Your task to perform on an android device: Open maps Image 0: 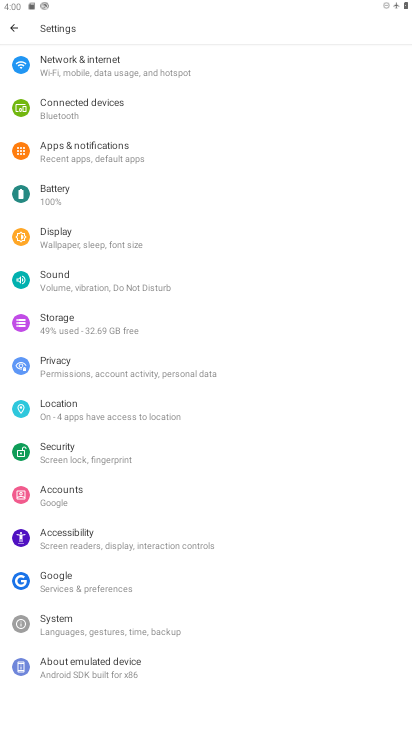
Step 0: press home button
Your task to perform on an android device: Open maps Image 1: 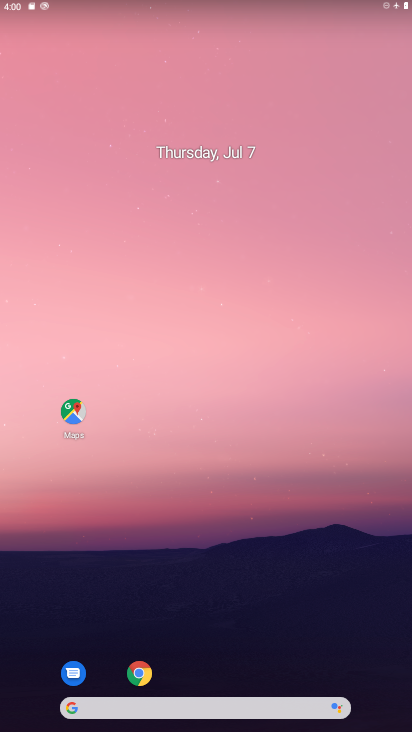
Step 1: click (72, 405)
Your task to perform on an android device: Open maps Image 2: 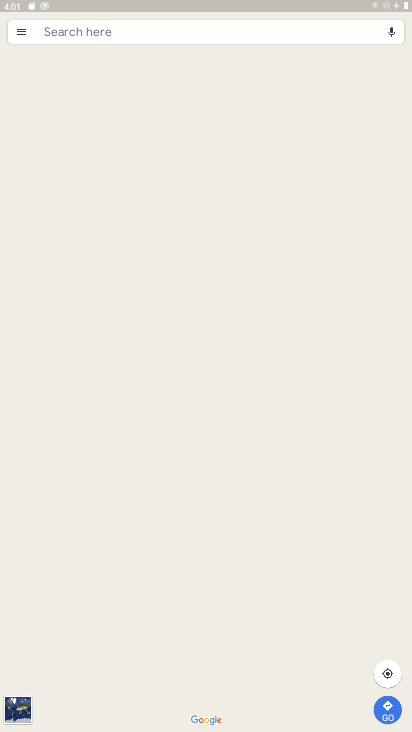
Step 2: task complete